Your task to perform on an android device: check the backup settings in the google photos Image 0: 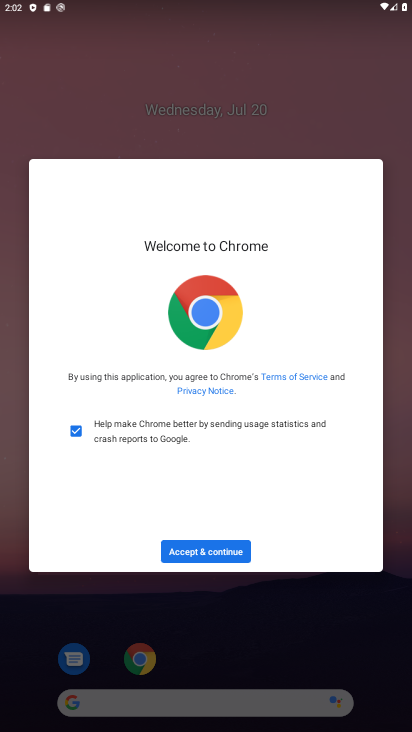
Step 0: click (183, 554)
Your task to perform on an android device: check the backup settings in the google photos Image 1: 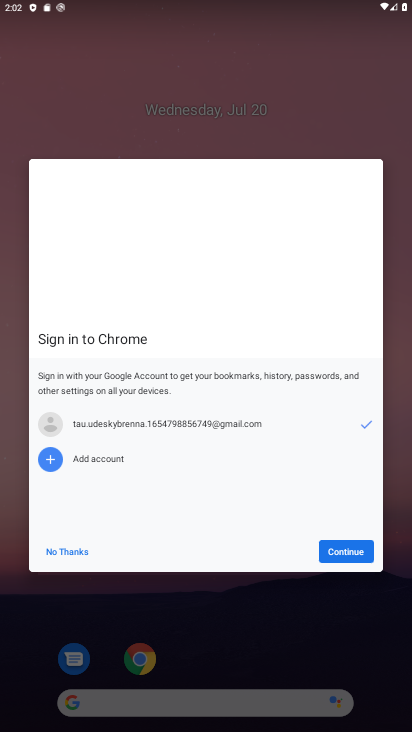
Step 1: click (345, 555)
Your task to perform on an android device: check the backup settings in the google photos Image 2: 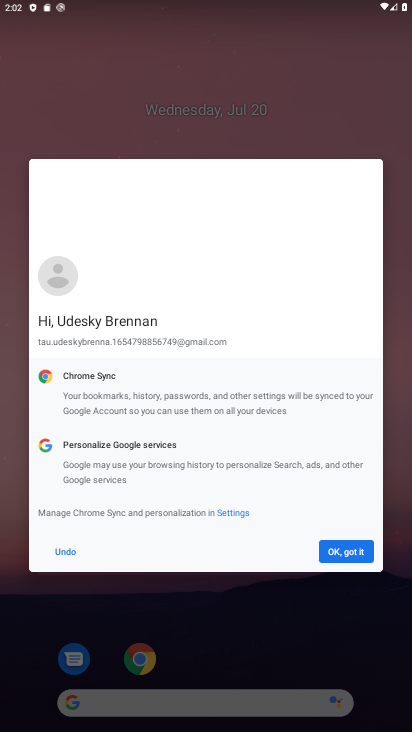
Step 2: click (356, 551)
Your task to perform on an android device: check the backup settings in the google photos Image 3: 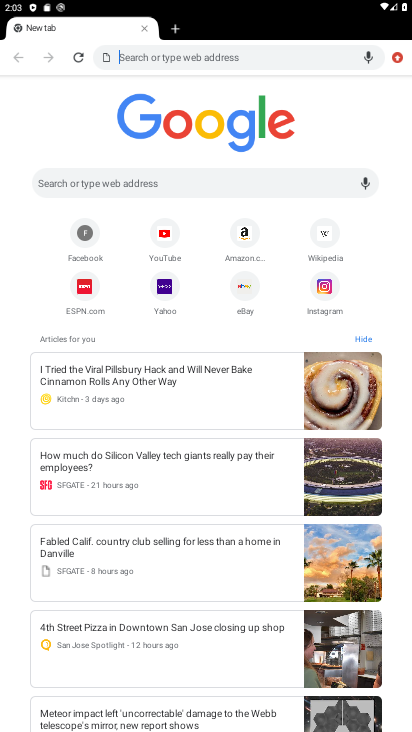
Step 3: press home button
Your task to perform on an android device: check the backup settings in the google photos Image 4: 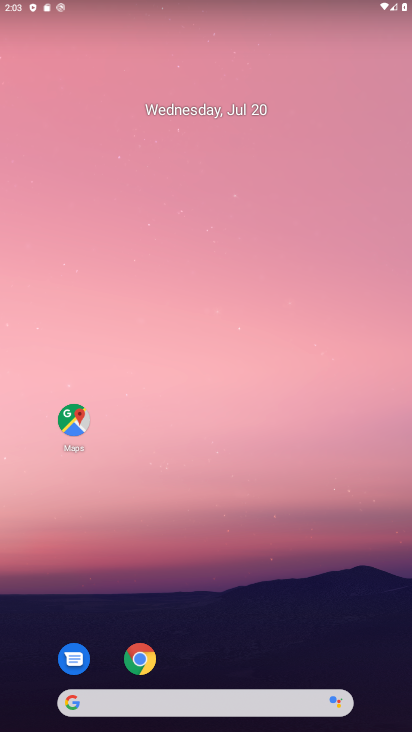
Step 4: drag from (280, 643) to (264, 84)
Your task to perform on an android device: check the backup settings in the google photos Image 5: 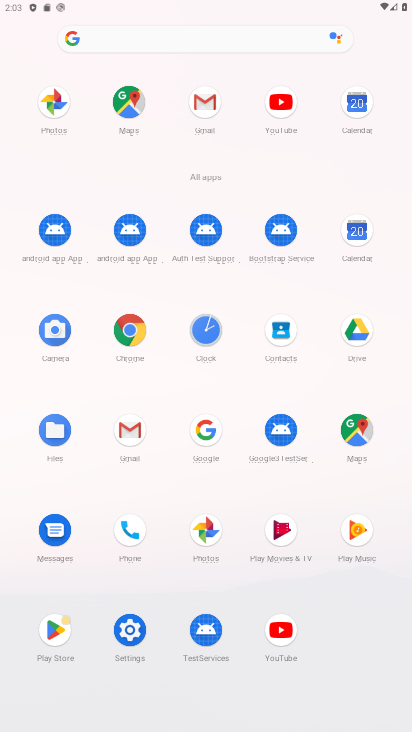
Step 5: click (59, 109)
Your task to perform on an android device: check the backup settings in the google photos Image 6: 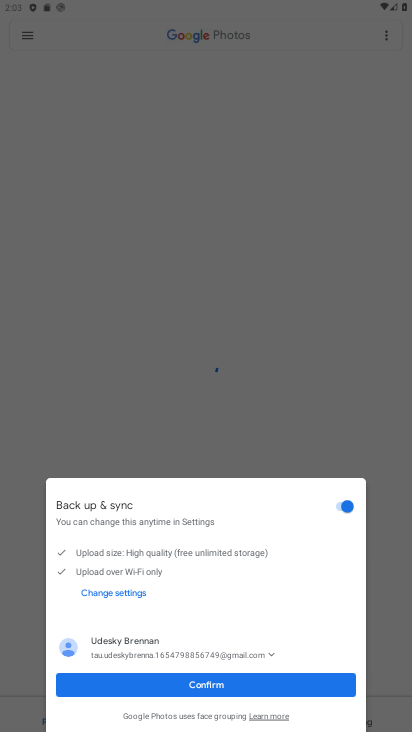
Step 6: click (228, 684)
Your task to perform on an android device: check the backup settings in the google photos Image 7: 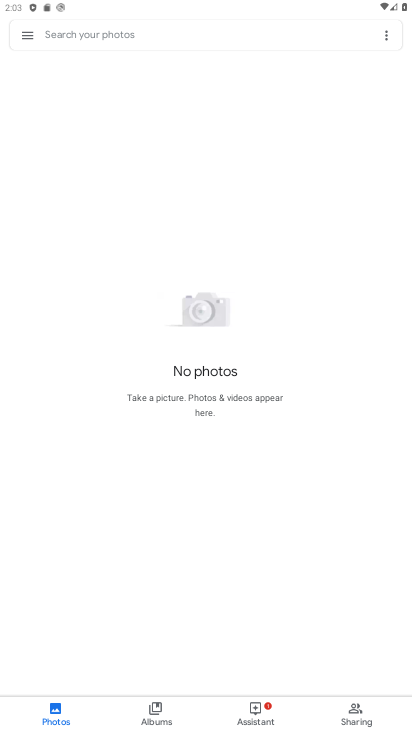
Step 7: click (31, 36)
Your task to perform on an android device: check the backup settings in the google photos Image 8: 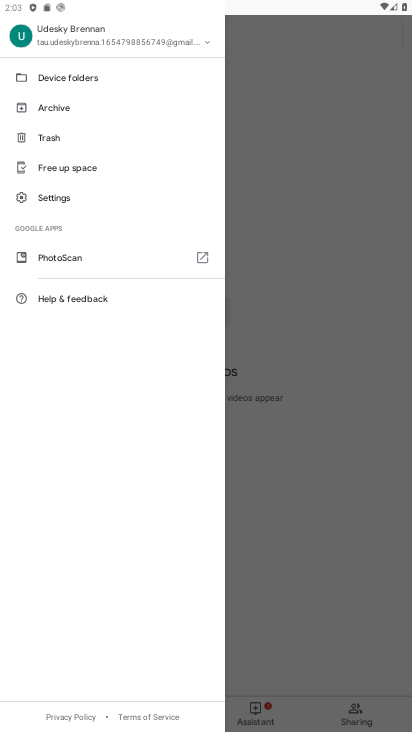
Step 8: click (83, 195)
Your task to perform on an android device: check the backup settings in the google photos Image 9: 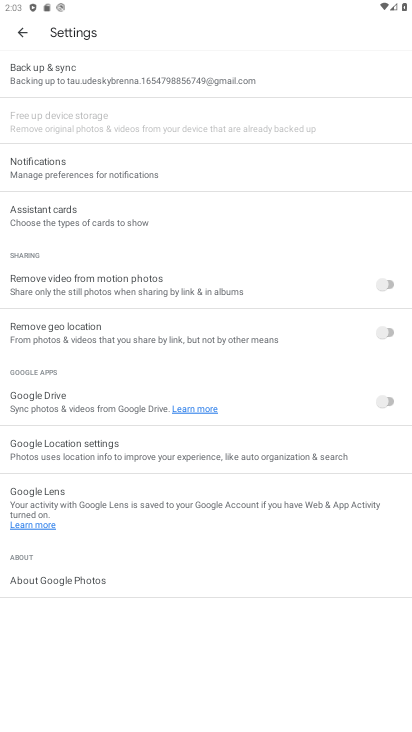
Step 9: click (90, 80)
Your task to perform on an android device: check the backup settings in the google photos Image 10: 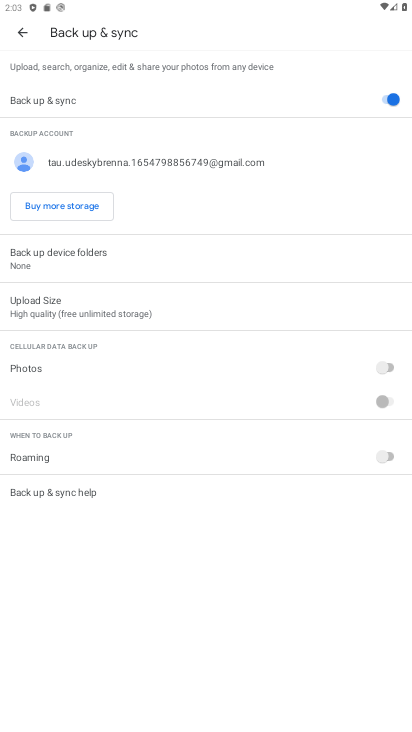
Step 10: task complete